Your task to perform on an android device: delete a single message in the gmail app Image 0: 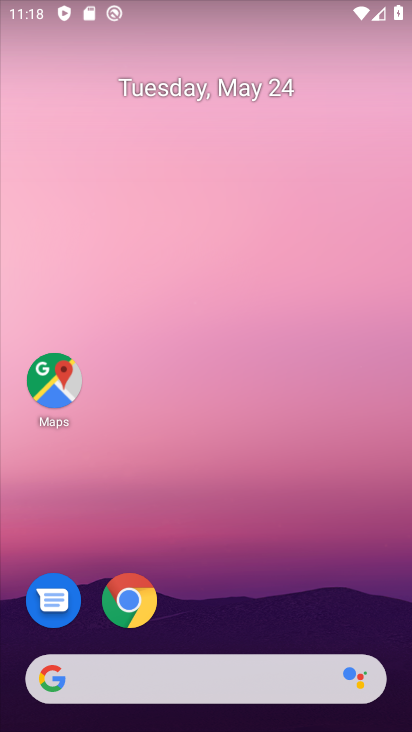
Step 0: drag from (391, 604) to (367, 130)
Your task to perform on an android device: delete a single message in the gmail app Image 1: 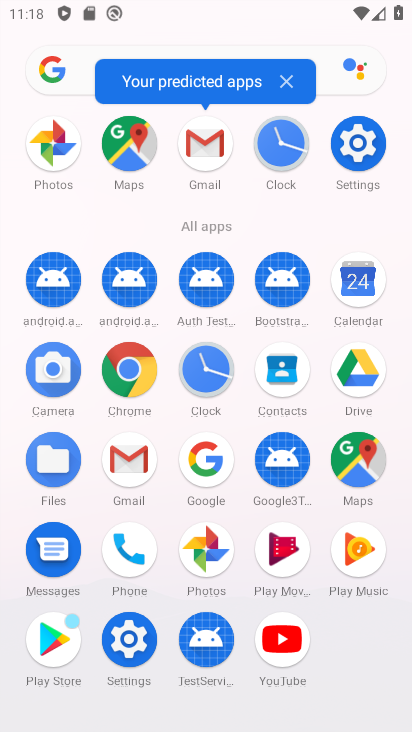
Step 1: click (130, 458)
Your task to perform on an android device: delete a single message in the gmail app Image 2: 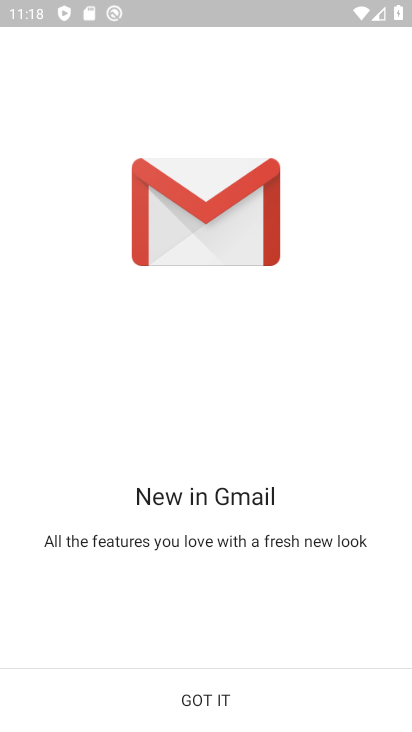
Step 2: click (242, 706)
Your task to perform on an android device: delete a single message in the gmail app Image 3: 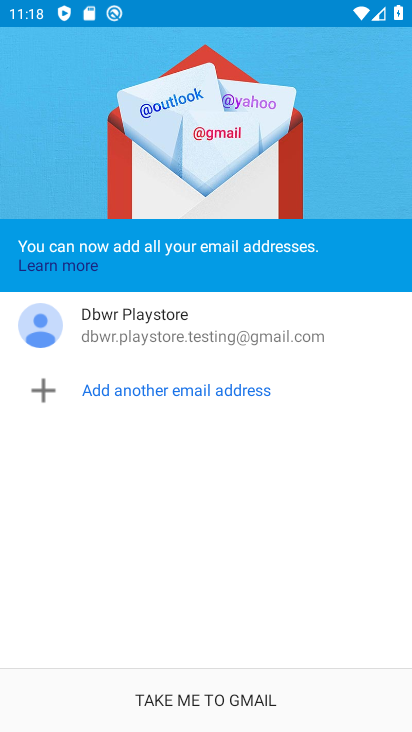
Step 3: click (242, 706)
Your task to perform on an android device: delete a single message in the gmail app Image 4: 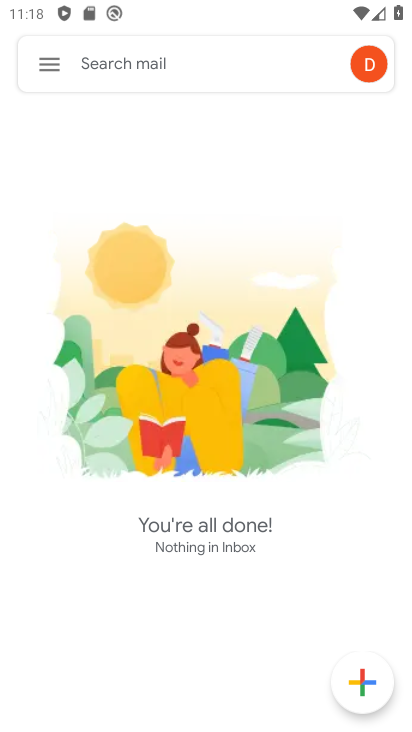
Step 4: click (54, 66)
Your task to perform on an android device: delete a single message in the gmail app Image 5: 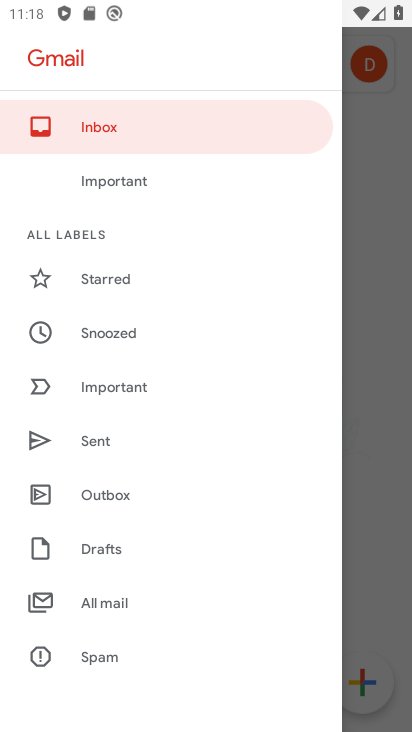
Step 5: drag from (239, 523) to (251, 411)
Your task to perform on an android device: delete a single message in the gmail app Image 6: 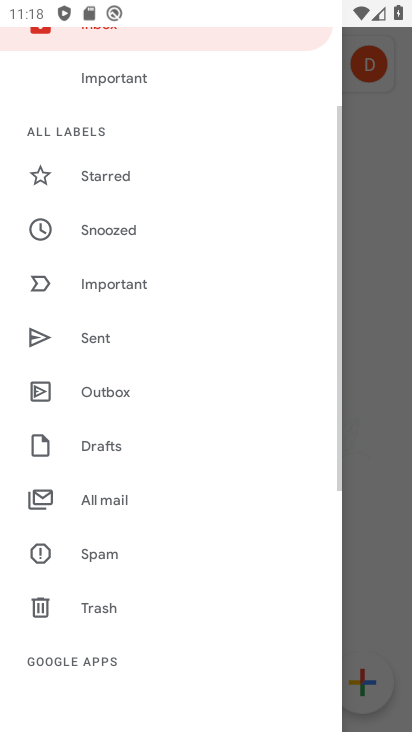
Step 6: drag from (252, 564) to (250, 408)
Your task to perform on an android device: delete a single message in the gmail app Image 7: 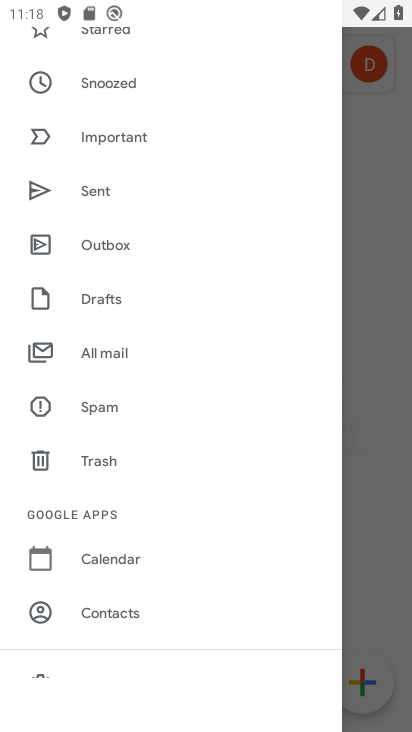
Step 7: drag from (251, 550) to (243, 434)
Your task to perform on an android device: delete a single message in the gmail app Image 8: 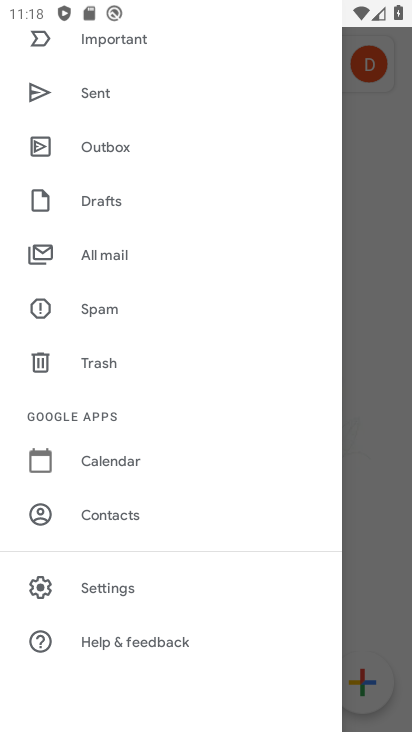
Step 8: drag from (236, 602) to (224, 460)
Your task to perform on an android device: delete a single message in the gmail app Image 9: 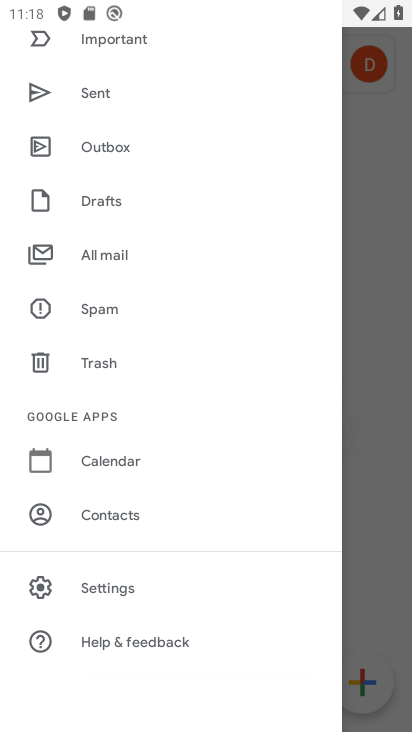
Step 9: drag from (222, 315) to (232, 492)
Your task to perform on an android device: delete a single message in the gmail app Image 10: 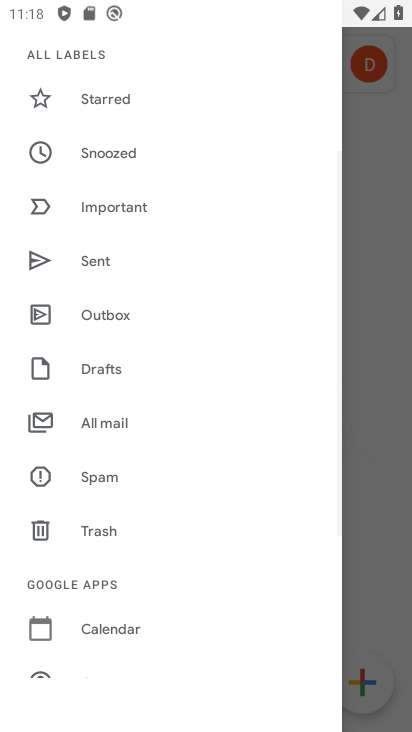
Step 10: drag from (248, 249) to (233, 475)
Your task to perform on an android device: delete a single message in the gmail app Image 11: 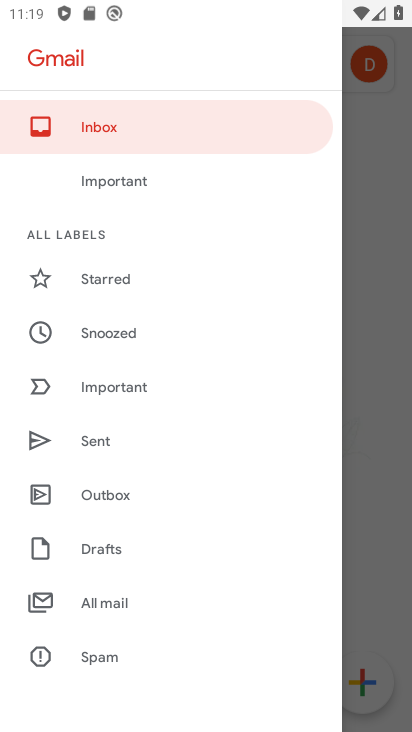
Step 11: drag from (238, 263) to (247, 398)
Your task to perform on an android device: delete a single message in the gmail app Image 12: 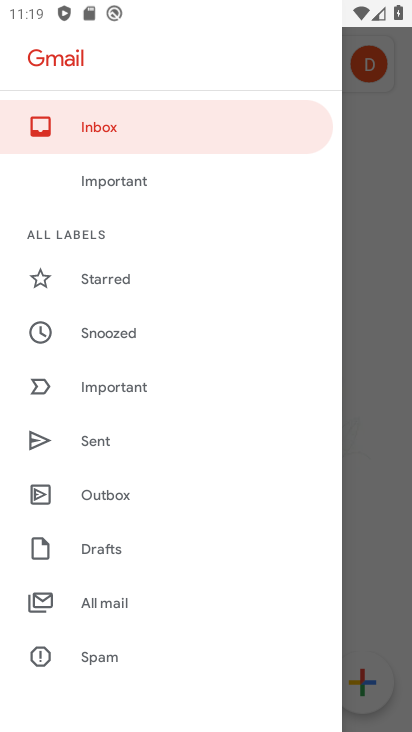
Step 12: click (124, 126)
Your task to perform on an android device: delete a single message in the gmail app Image 13: 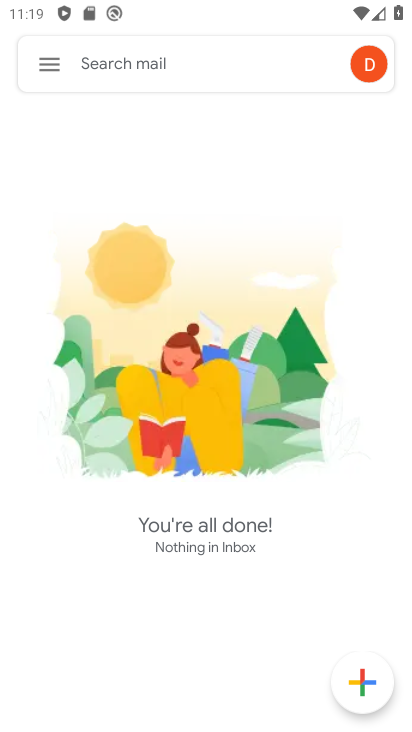
Step 13: task complete